Your task to perform on an android device: Open network settings Image 0: 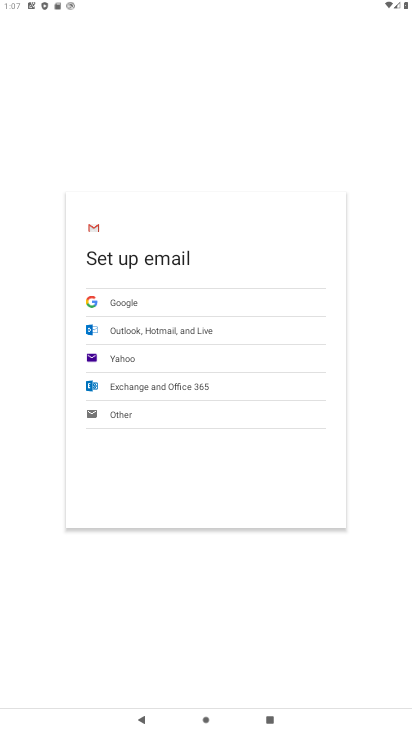
Step 0: press home button
Your task to perform on an android device: Open network settings Image 1: 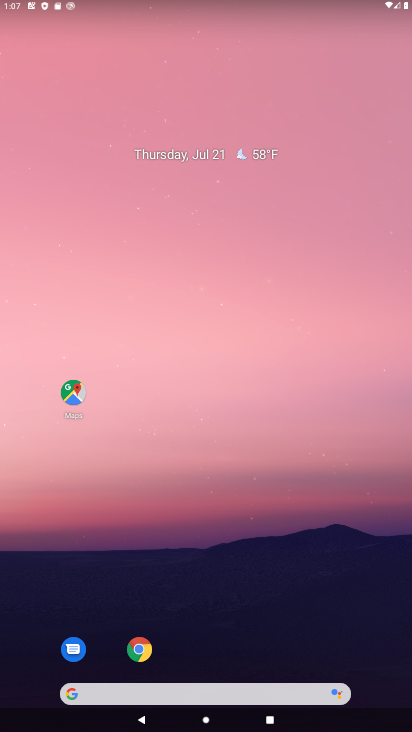
Step 1: drag from (238, 652) to (245, 3)
Your task to perform on an android device: Open network settings Image 2: 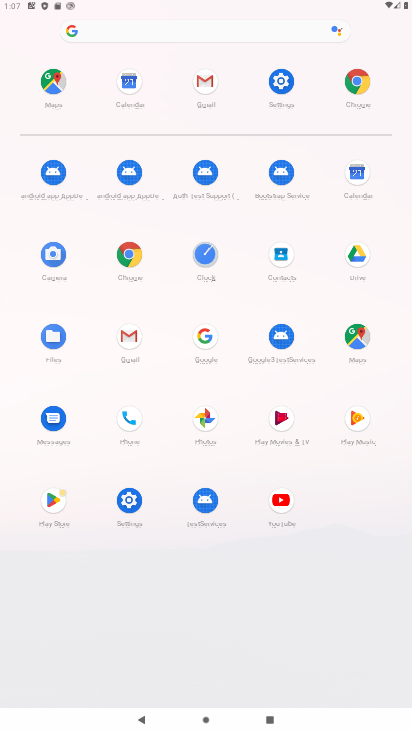
Step 2: click (262, 98)
Your task to perform on an android device: Open network settings Image 3: 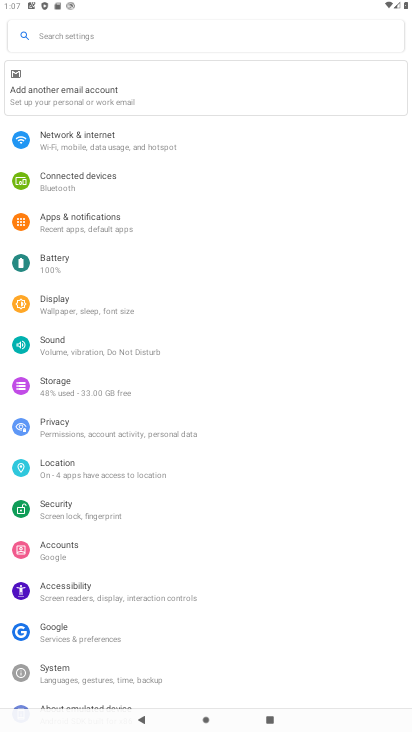
Step 3: click (135, 152)
Your task to perform on an android device: Open network settings Image 4: 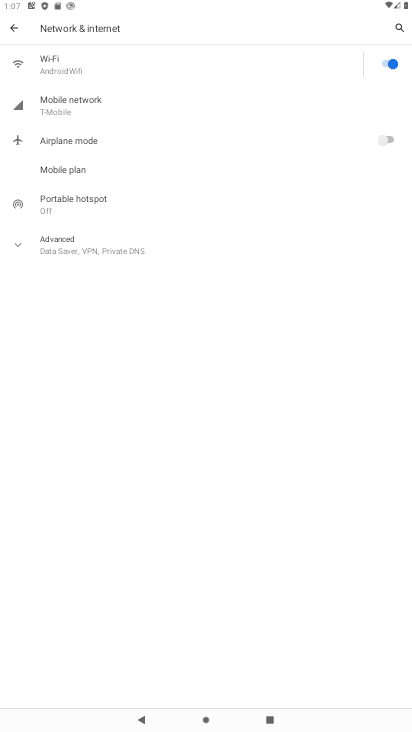
Step 4: task complete